Your task to perform on an android device: change the clock display to digital Image 0: 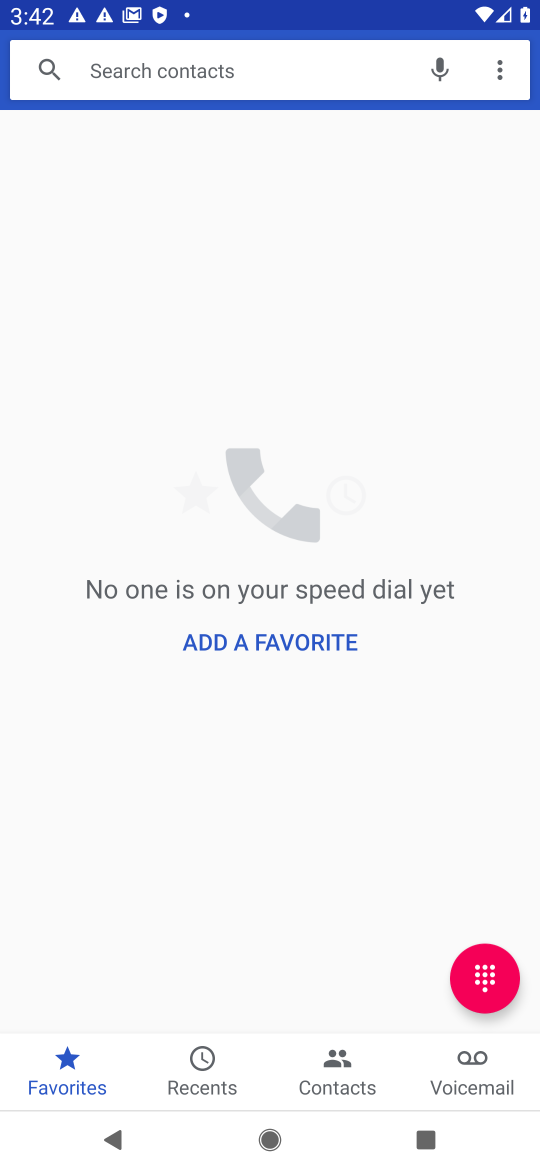
Step 0: press home button
Your task to perform on an android device: change the clock display to digital Image 1: 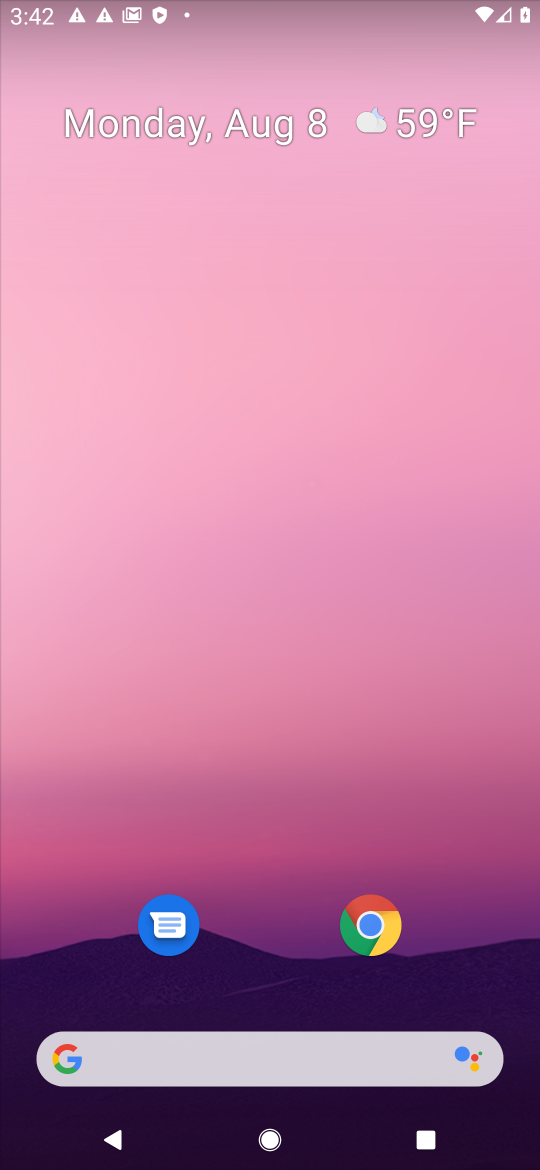
Step 1: drag from (259, 691) to (260, 178)
Your task to perform on an android device: change the clock display to digital Image 2: 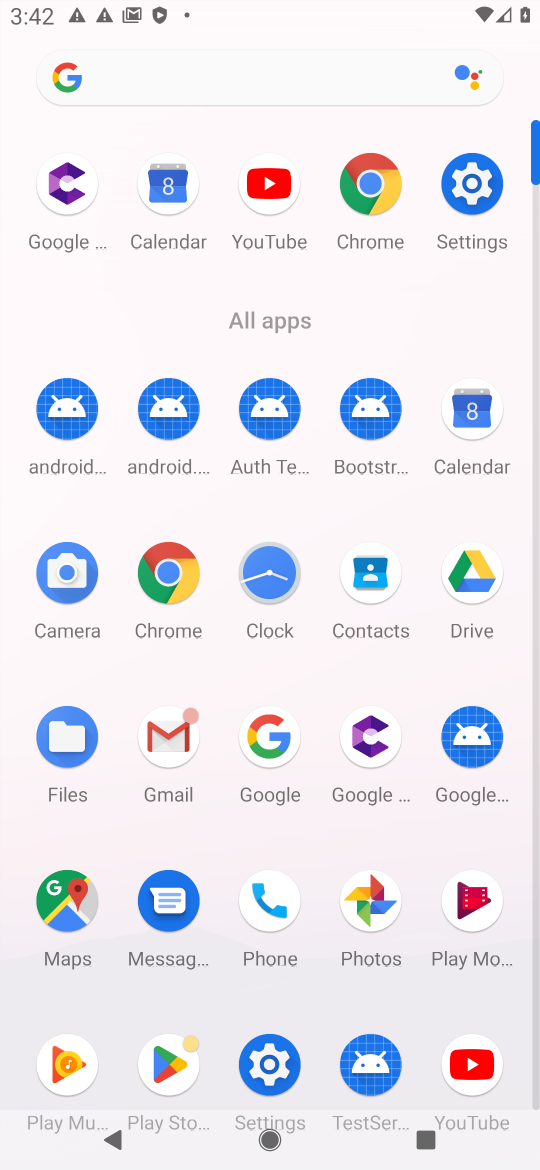
Step 2: click (265, 578)
Your task to perform on an android device: change the clock display to digital Image 3: 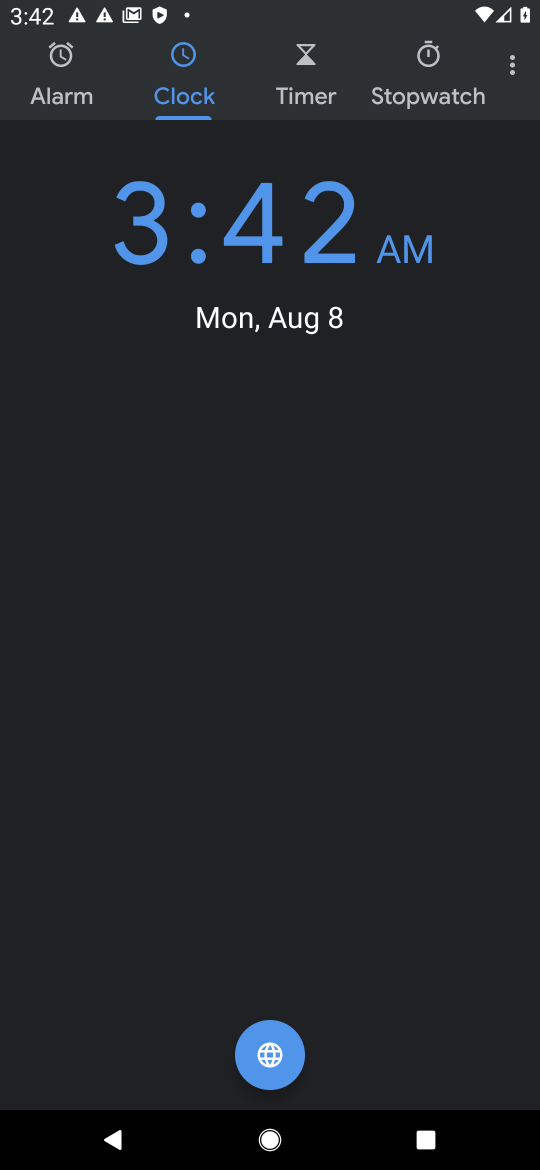
Step 3: click (515, 77)
Your task to perform on an android device: change the clock display to digital Image 4: 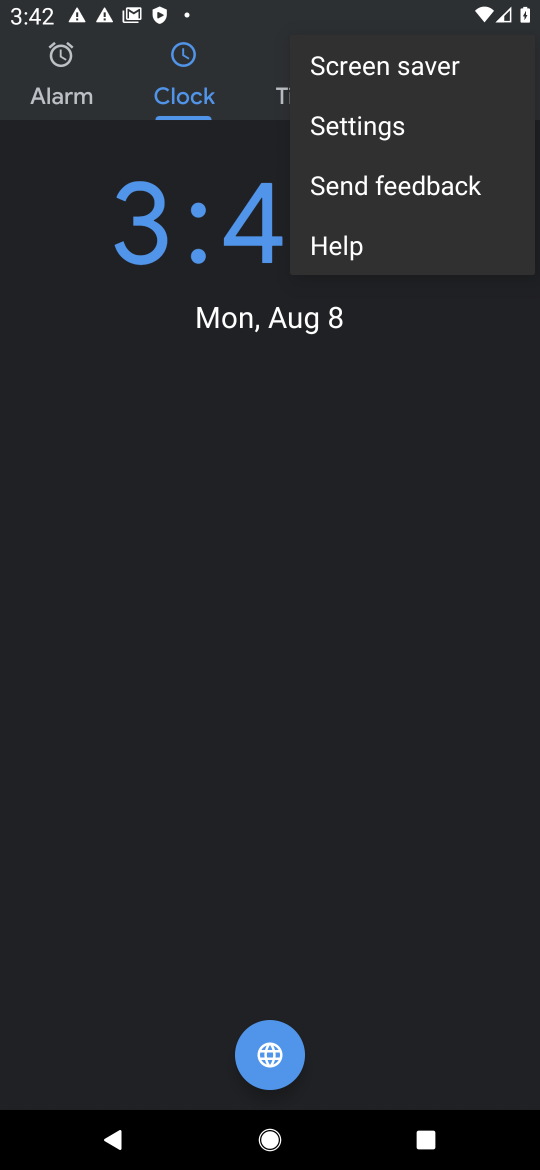
Step 4: click (347, 129)
Your task to perform on an android device: change the clock display to digital Image 5: 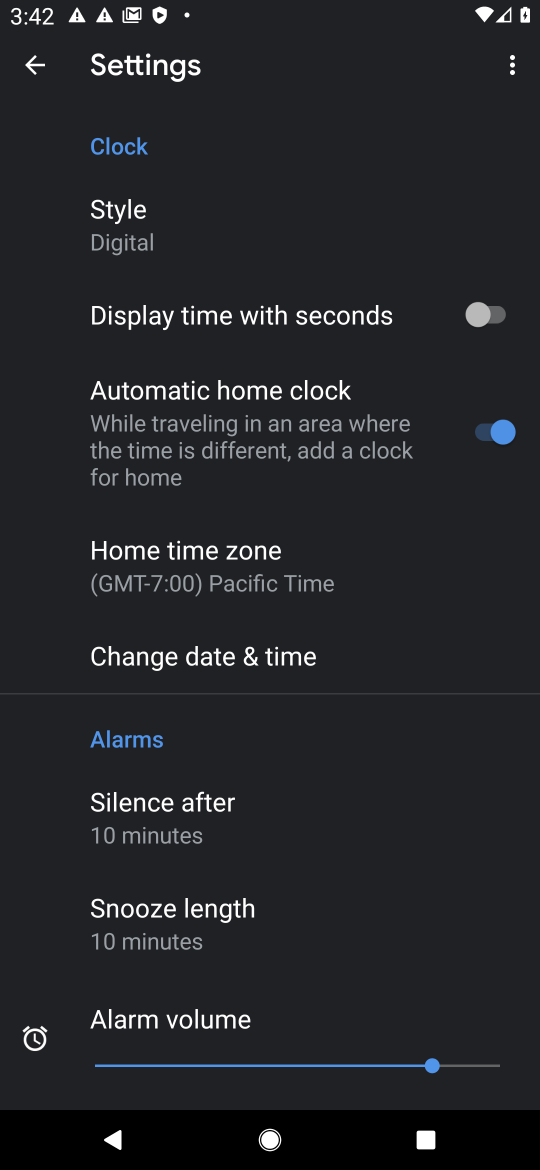
Step 5: task complete